Your task to perform on an android device: What's the news in Brunei? Image 0: 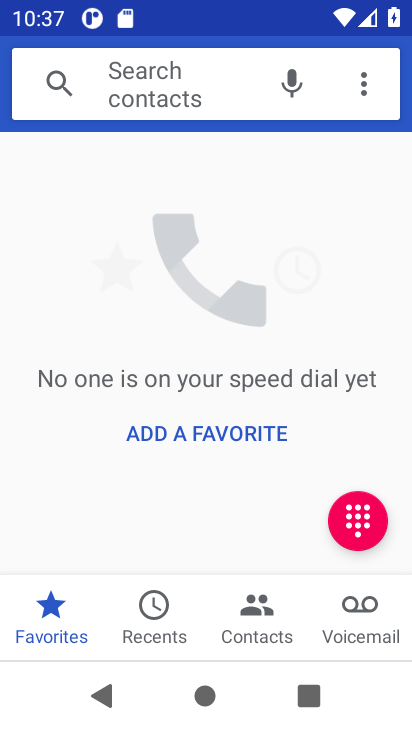
Step 0: press home button
Your task to perform on an android device: What's the news in Brunei? Image 1: 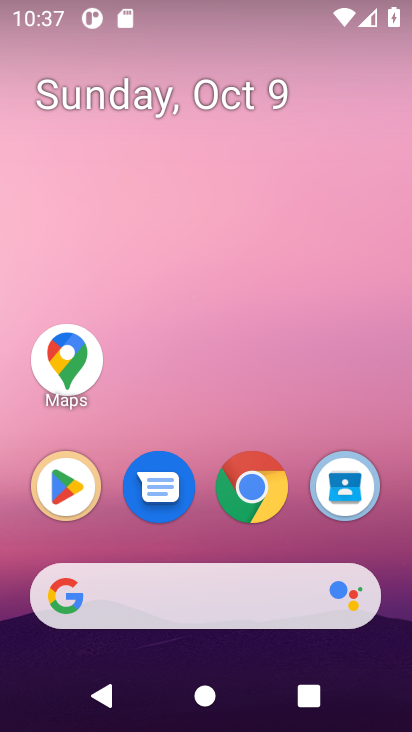
Step 1: click (268, 495)
Your task to perform on an android device: What's the news in Brunei? Image 2: 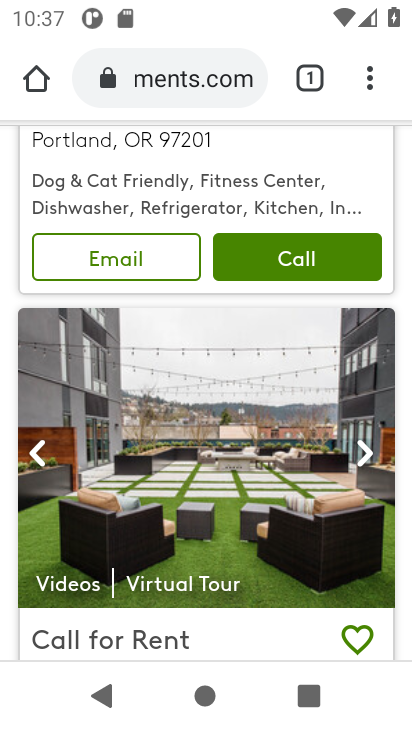
Step 2: click (209, 78)
Your task to perform on an android device: What's the news in Brunei? Image 3: 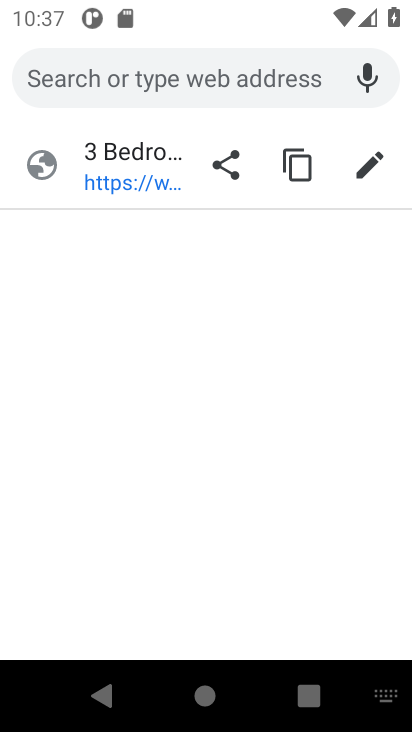
Step 3: type "news in brunei"
Your task to perform on an android device: What's the news in Brunei? Image 4: 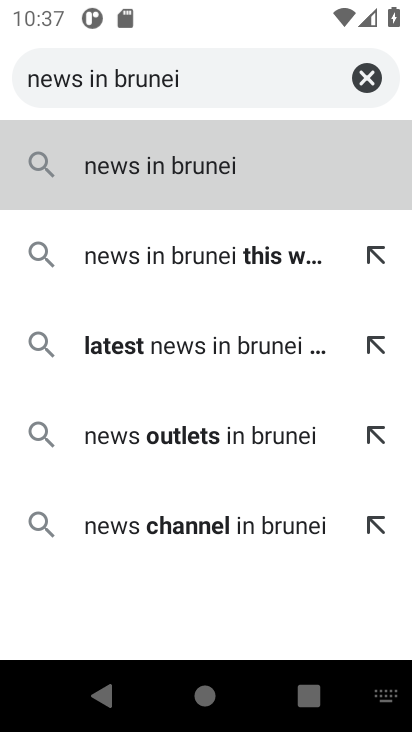
Step 4: type ""
Your task to perform on an android device: What's the news in Brunei? Image 5: 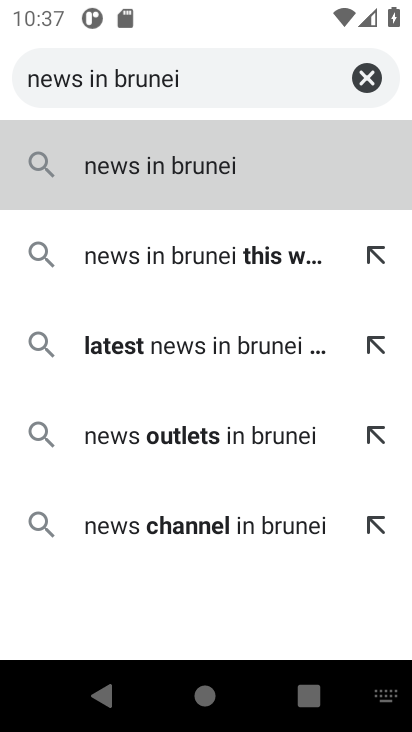
Step 5: press enter
Your task to perform on an android device: What's the news in Brunei? Image 6: 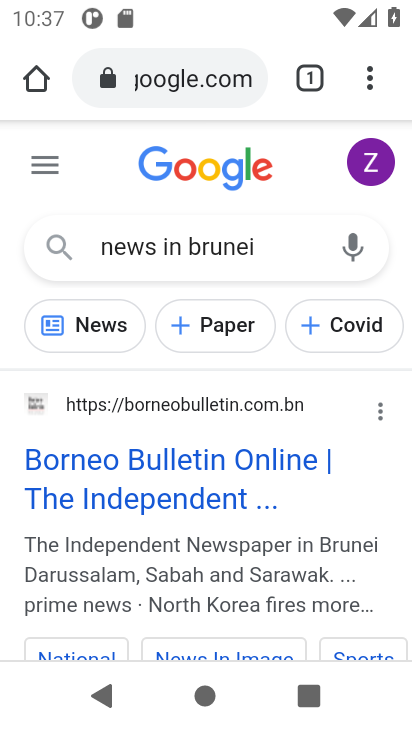
Step 6: click (110, 334)
Your task to perform on an android device: What's the news in Brunei? Image 7: 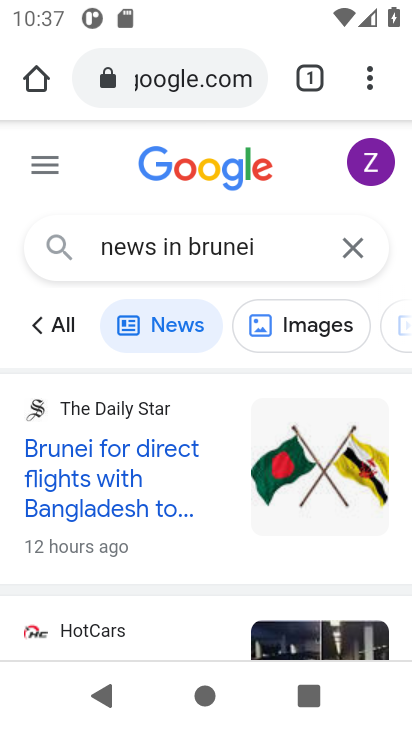
Step 7: task complete